Your task to perform on an android device: Is it going to rain tomorrow? Image 0: 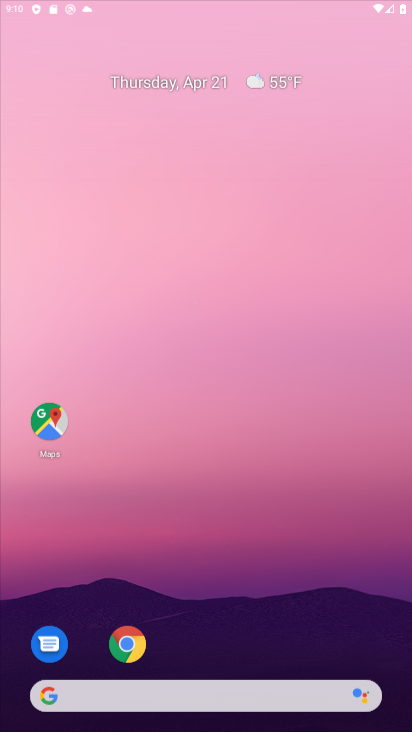
Step 0: click (254, 313)
Your task to perform on an android device: Is it going to rain tomorrow? Image 1: 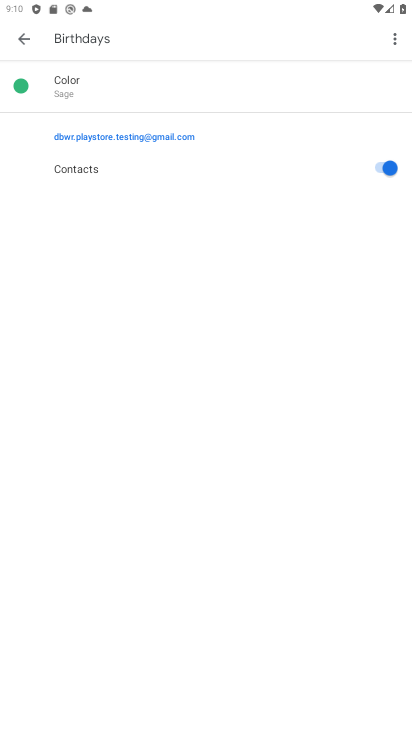
Step 1: press home button
Your task to perform on an android device: Is it going to rain tomorrow? Image 2: 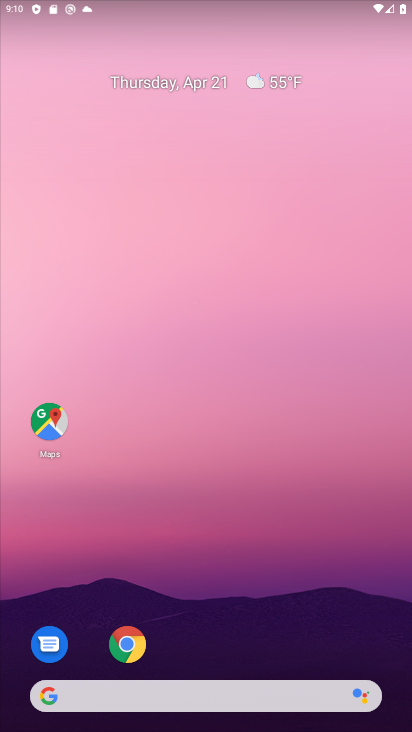
Step 2: click (126, 637)
Your task to perform on an android device: Is it going to rain tomorrow? Image 3: 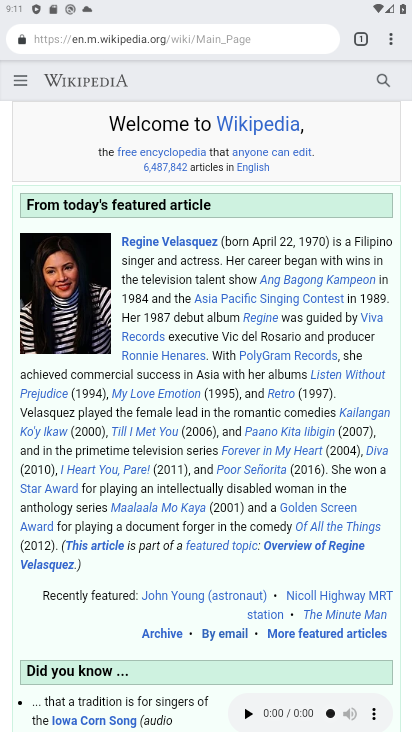
Step 3: click (138, 39)
Your task to perform on an android device: Is it going to rain tomorrow? Image 4: 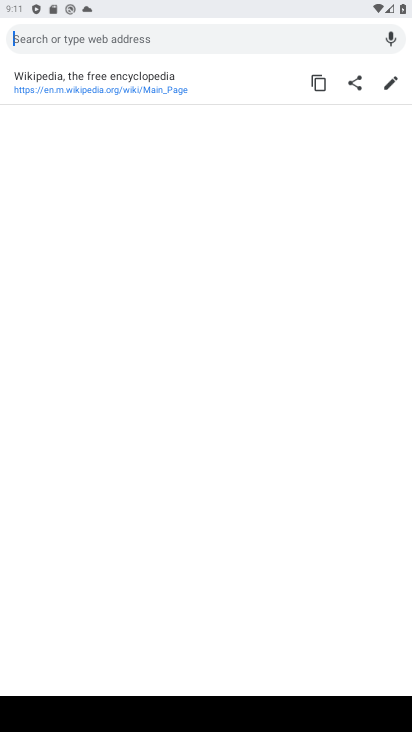
Step 4: type "is it going to rain tomorrow?"
Your task to perform on an android device: Is it going to rain tomorrow? Image 5: 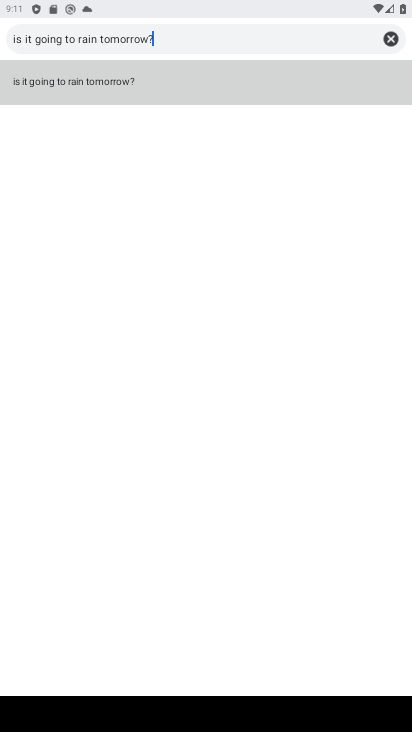
Step 5: click (170, 86)
Your task to perform on an android device: Is it going to rain tomorrow? Image 6: 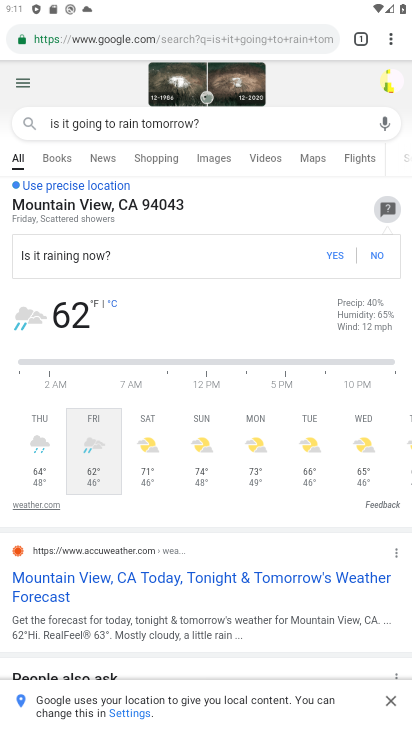
Step 6: task complete